Your task to perform on an android device: turn on priority inbox in the gmail app Image 0: 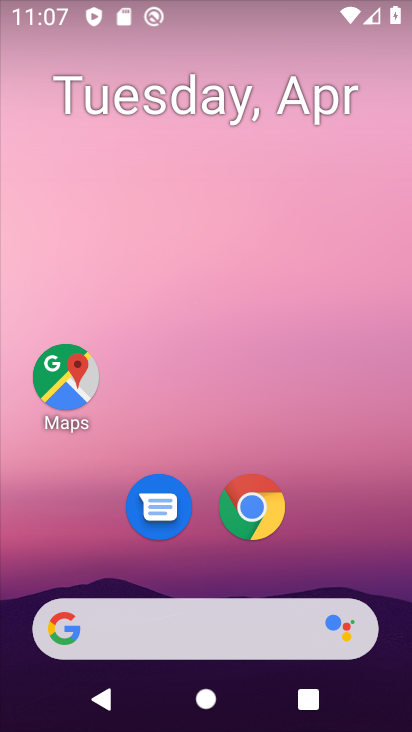
Step 0: drag from (333, 417) to (293, 102)
Your task to perform on an android device: turn on priority inbox in the gmail app Image 1: 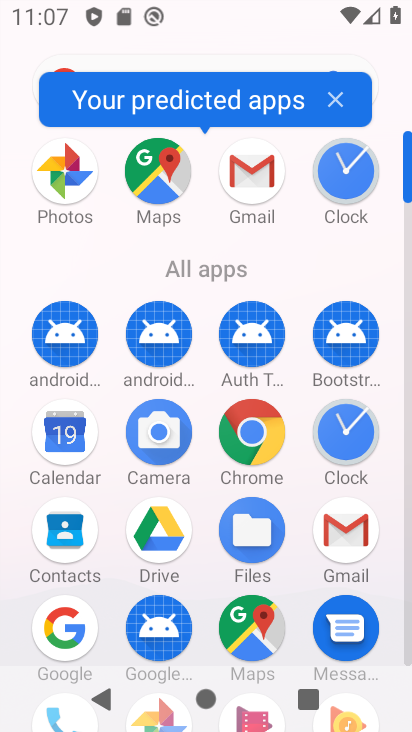
Step 1: click (262, 183)
Your task to perform on an android device: turn on priority inbox in the gmail app Image 2: 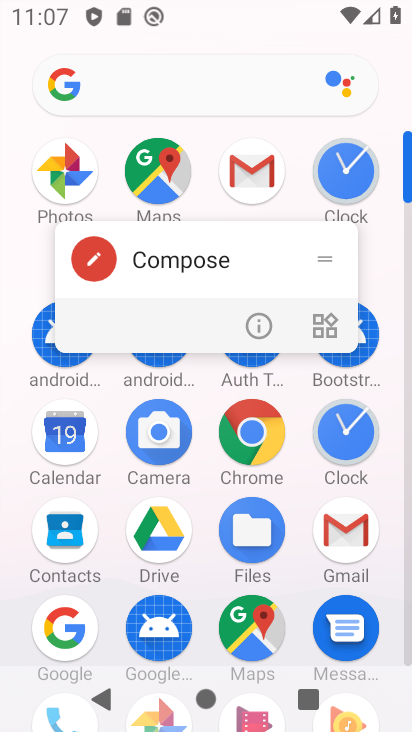
Step 2: click (248, 171)
Your task to perform on an android device: turn on priority inbox in the gmail app Image 3: 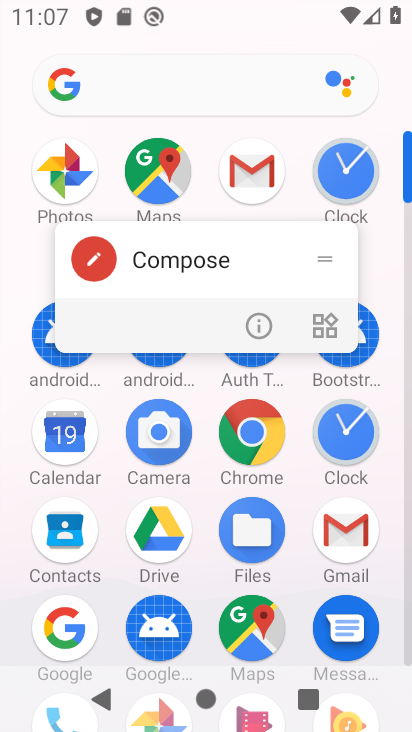
Step 3: click (352, 532)
Your task to perform on an android device: turn on priority inbox in the gmail app Image 4: 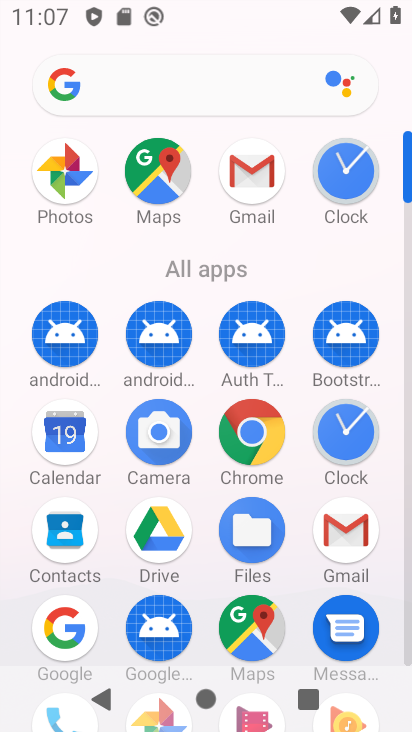
Step 4: click (352, 532)
Your task to perform on an android device: turn on priority inbox in the gmail app Image 5: 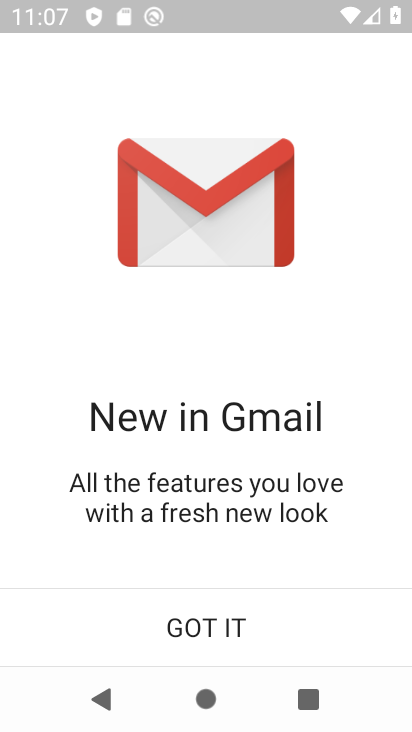
Step 5: click (223, 596)
Your task to perform on an android device: turn on priority inbox in the gmail app Image 6: 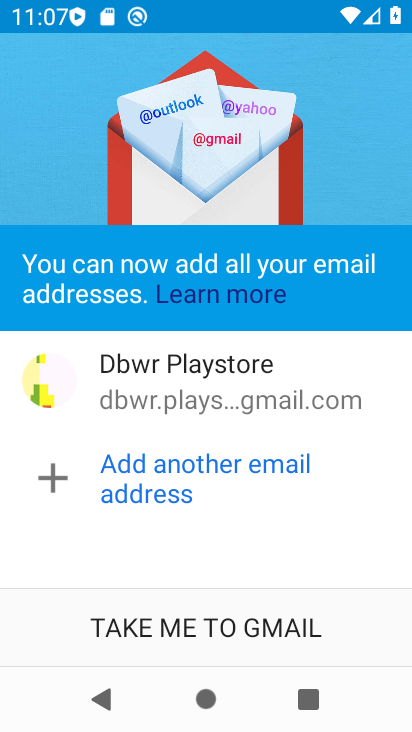
Step 6: click (202, 615)
Your task to perform on an android device: turn on priority inbox in the gmail app Image 7: 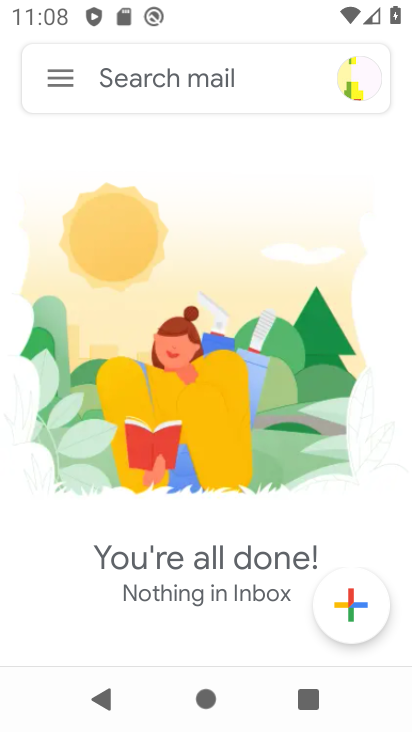
Step 7: click (59, 72)
Your task to perform on an android device: turn on priority inbox in the gmail app Image 8: 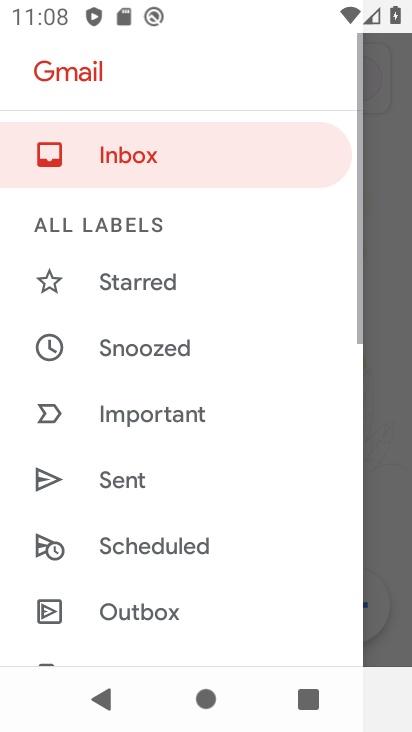
Step 8: drag from (183, 505) to (232, 114)
Your task to perform on an android device: turn on priority inbox in the gmail app Image 9: 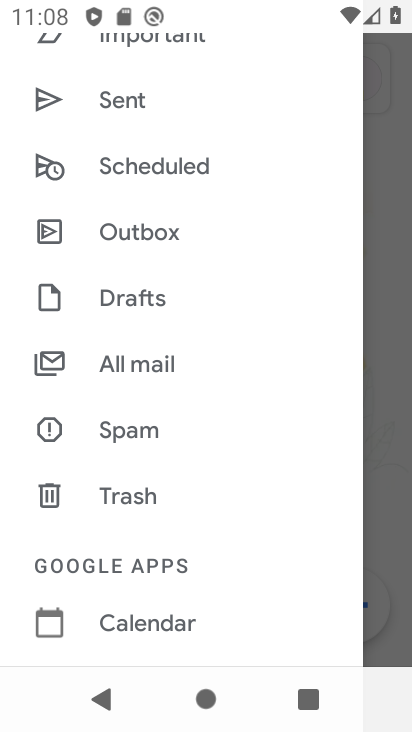
Step 9: drag from (174, 541) to (238, 160)
Your task to perform on an android device: turn on priority inbox in the gmail app Image 10: 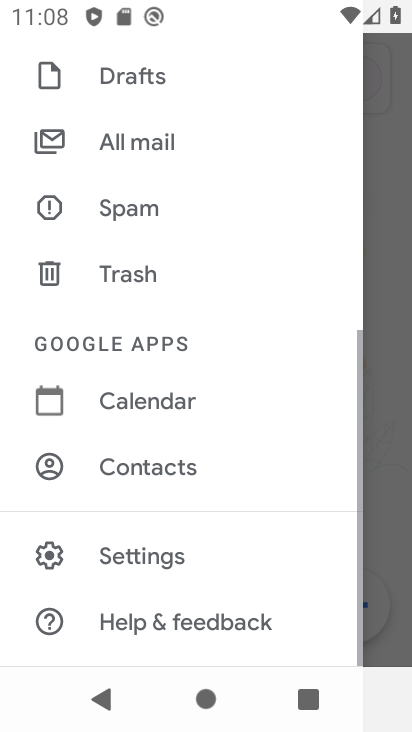
Step 10: click (152, 548)
Your task to perform on an android device: turn on priority inbox in the gmail app Image 11: 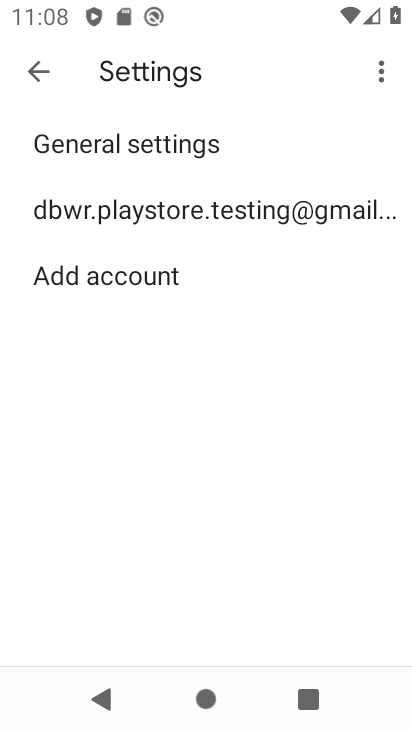
Step 11: click (199, 194)
Your task to perform on an android device: turn on priority inbox in the gmail app Image 12: 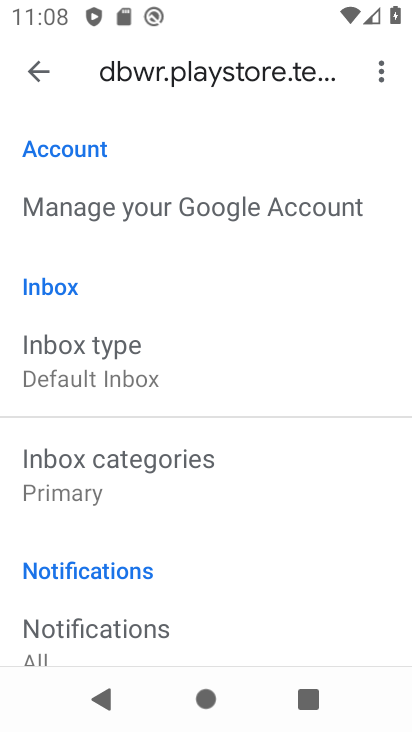
Step 12: click (111, 364)
Your task to perform on an android device: turn on priority inbox in the gmail app Image 13: 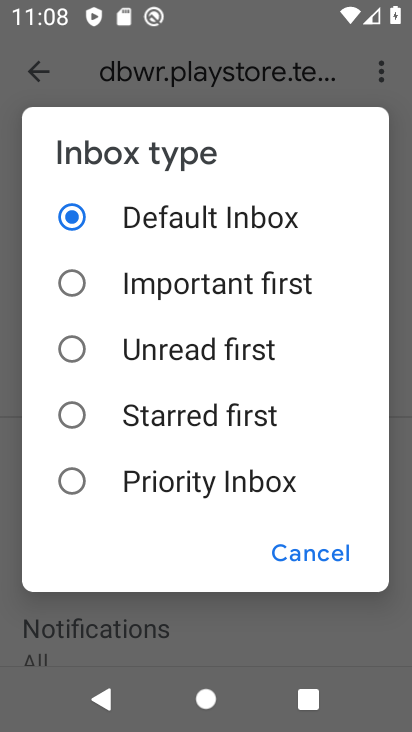
Step 13: click (170, 475)
Your task to perform on an android device: turn on priority inbox in the gmail app Image 14: 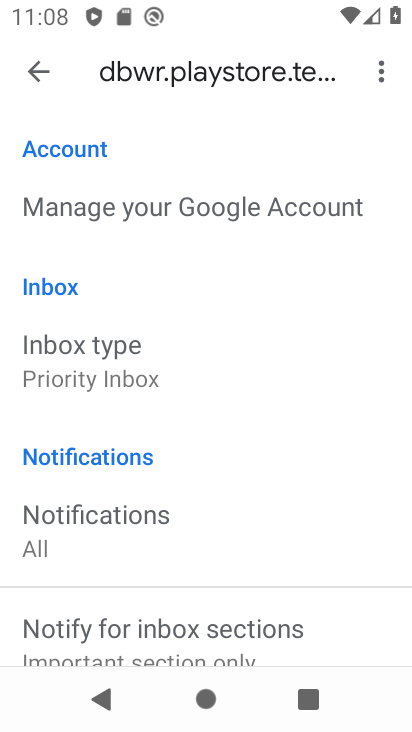
Step 14: task complete